Your task to perform on an android device: change notification settings in the gmail app Image 0: 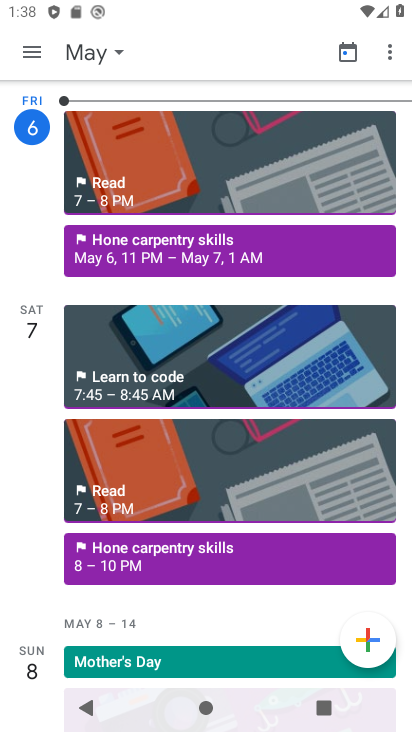
Step 0: press back button
Your task to perform on an android device: change notification settings in the gmail app Image 1: 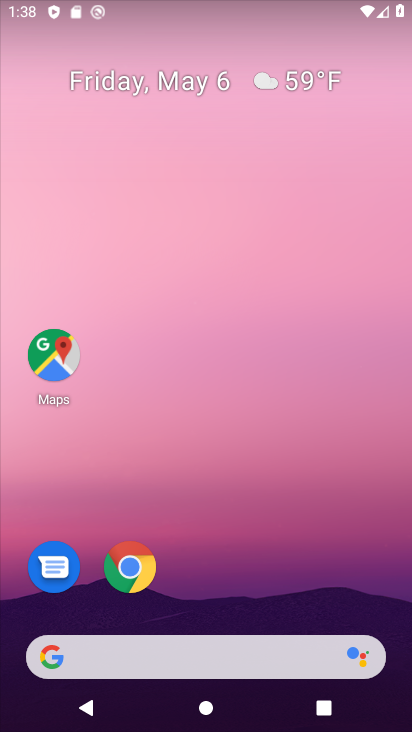
Step 1: drag from (215, 534) to (206, 96)
Your task to perform on an android device: change notification settings in the gmail app Image 2: 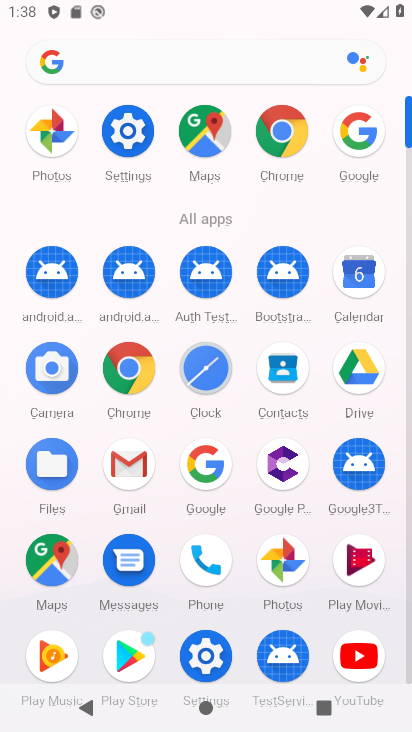
Step 2: click (125, 466)
Your task to perform on an android device: change notification settings in the gmail app Image 3: 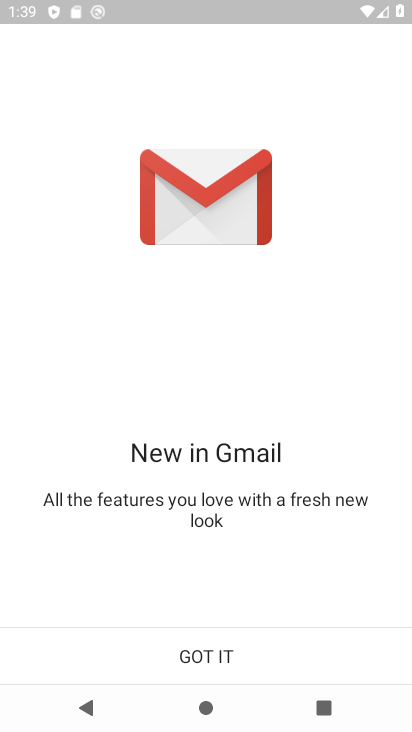
Step 3: click (212, 653)
Your task to perform on an android device: change notification settings in the gmail app Image 4: 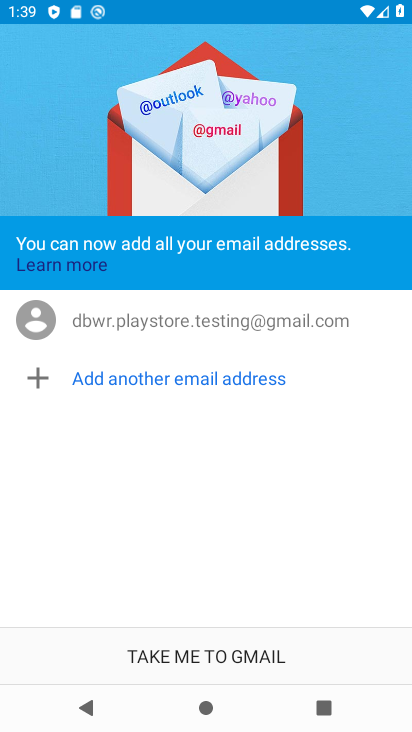
Step 4: click (210, 656)
Your task to perform on an android device: change notification settings in the gmail app Image 5: 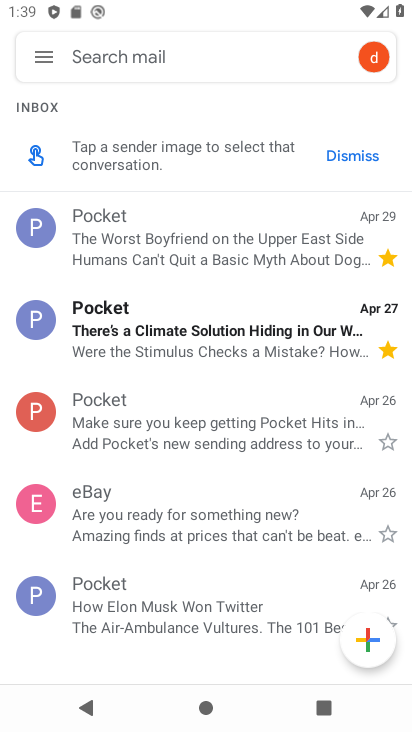
Step 5: click (41, 60)
Your task to perform on an android device: change notification settings in the gmail app Image 6: 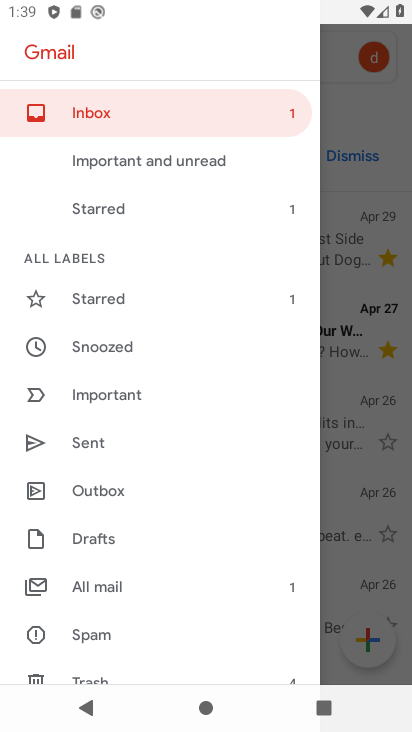
Step 6: drag from (166, 548) to (162, 394)
Your task to perform on an android device: change notification settings in the gmail app Image 7: 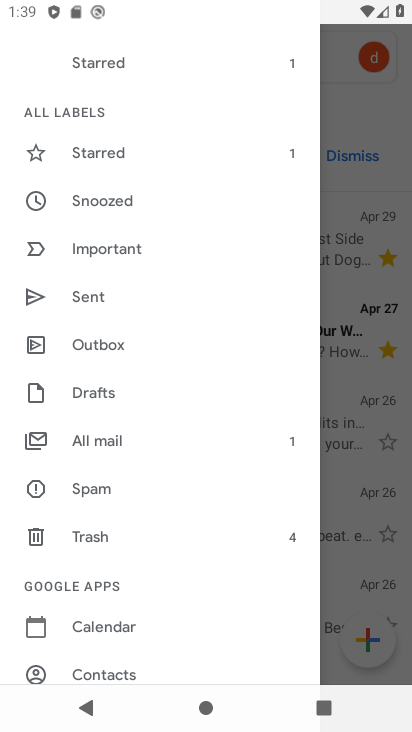
Step 7: drag from (136, 531) to (182, 390)
Your task to perform on an android device: change notification settings in the gmail app Image 8: 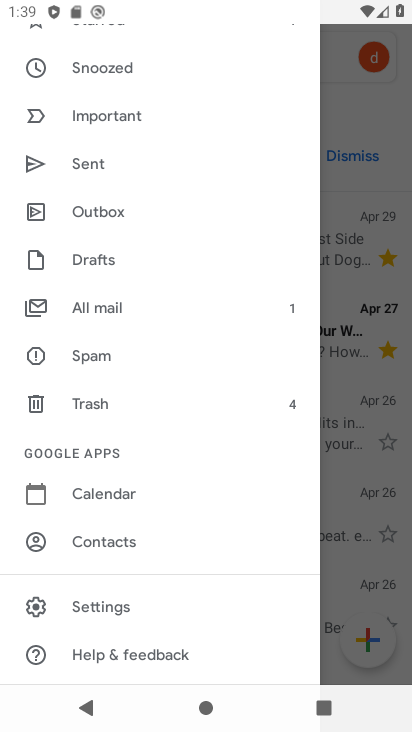
Step 8: click (103, 610)
Your task to perform on an android device: change notification settings in the gmail app Image 9: 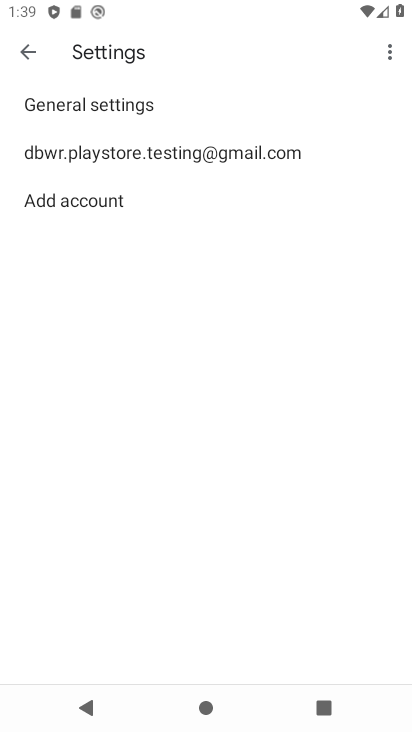
Step 9: click (182, 148)
Your task to perform on an android device: change notification settings in the gmail app Image 10: 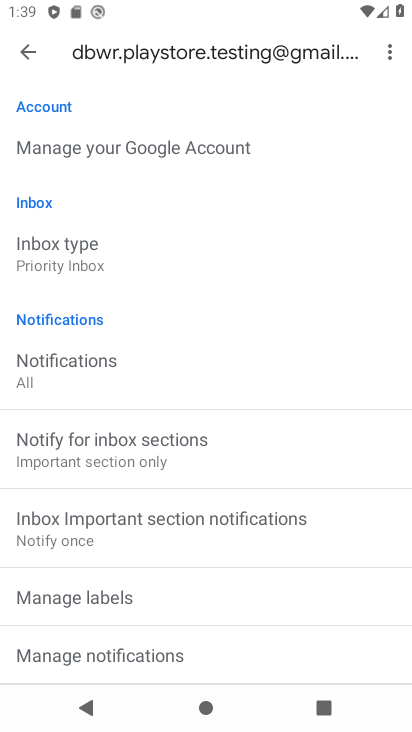
Step 10: drag from (106, 397) to (127, 298)
Your task to perform on an android device: change notification settings in the gmail app Image 11: 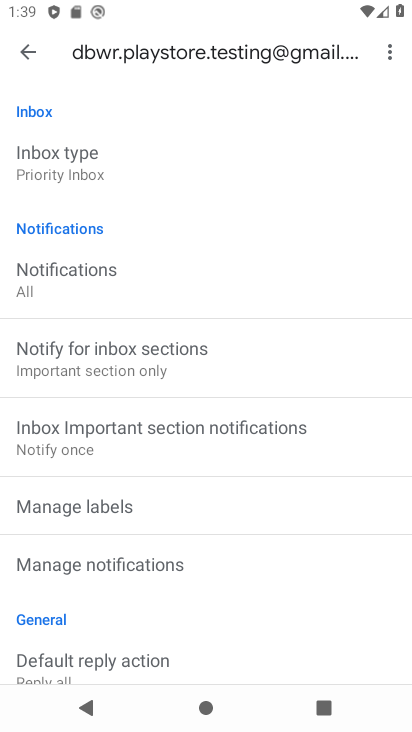
Step 11: click (106, 567)
Your task to perform on an android device: change notification settings in the gmail app Image 12: 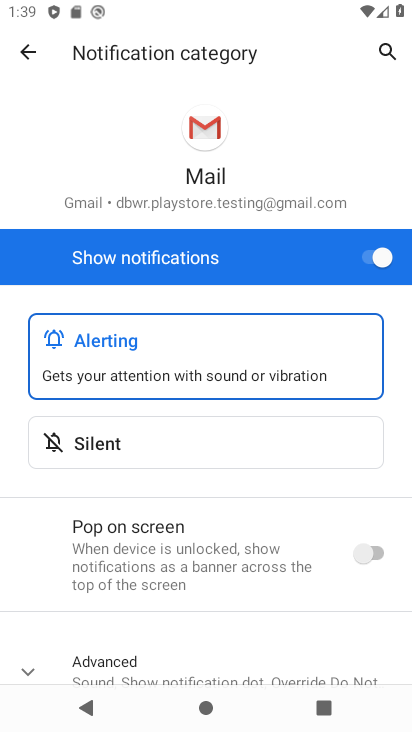
Step 12: click (381, 254)
Your task to perform on an android device: change notification settings in the gmail app Image 13: 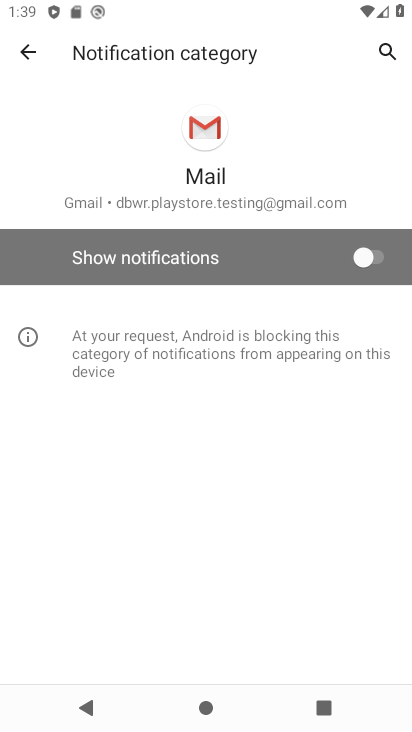
Step 13: task complete